Your task to perform on an android device: Open the calendar and show me this week's events? Image 0: 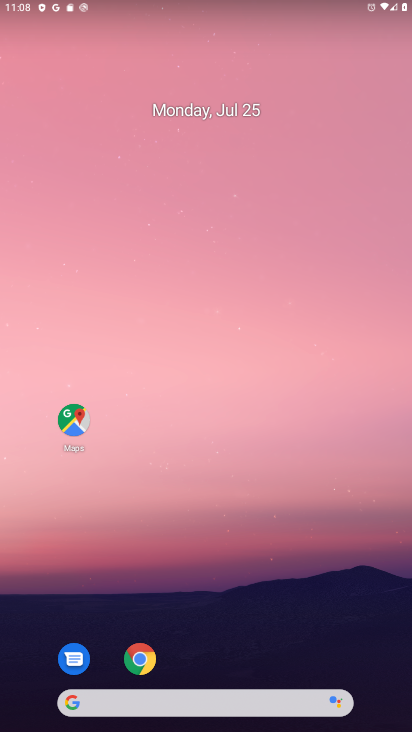
Step 0: drag from (236, 597) to (109, 13)
Your task to perform on an android device: Open the calendar and show me this week's events? Image 1: 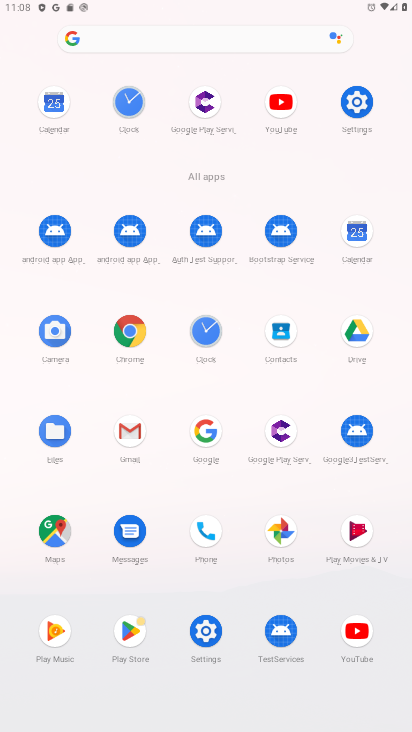
Step 1: click (359, 237)
Your task to perform on an android device: Open the calendar and show me this week's events? Image 2: 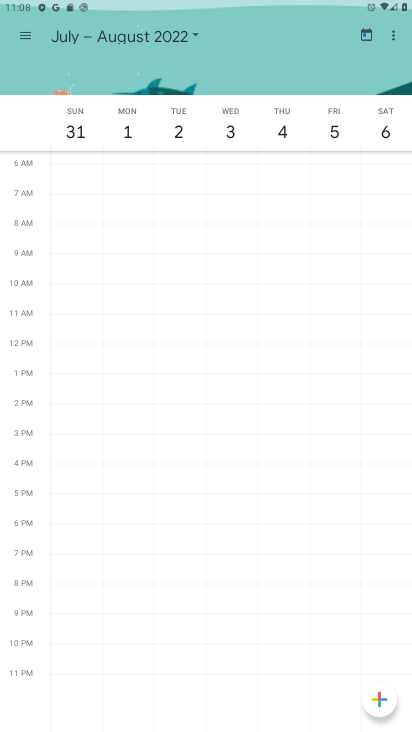
Step 2: click (183, 28)
Your task to perform on an android device: Open the calendar and show me this week's events? Image 3: 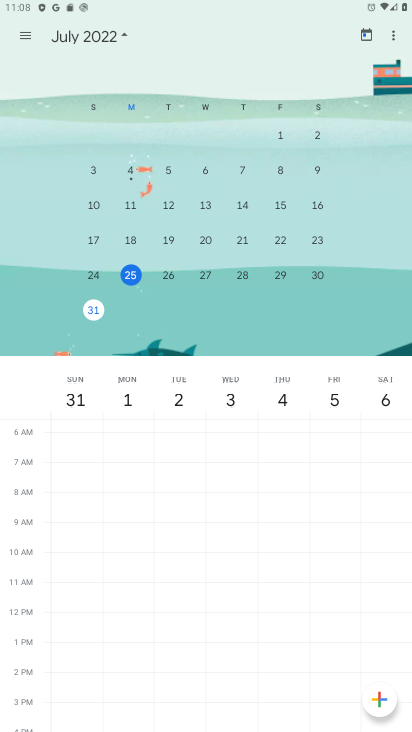
Step 3: click (168, 271)
Your task to perform on an android device: Open the calendar and show me this week's events? Image 4: 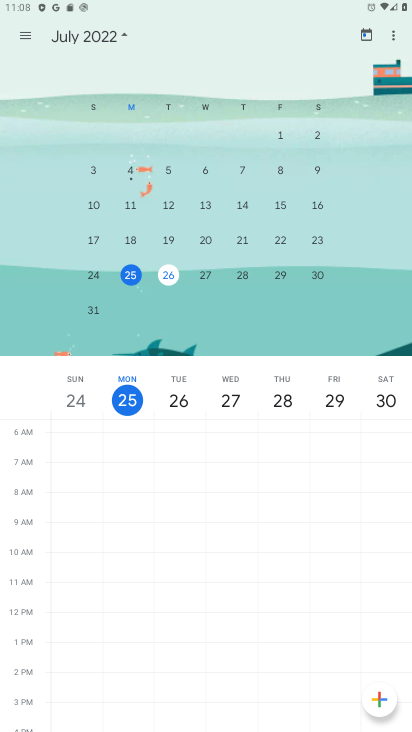
Step 4: task complete